Your task to perform on an android device: see sites visited before in the chrome app Image 0: 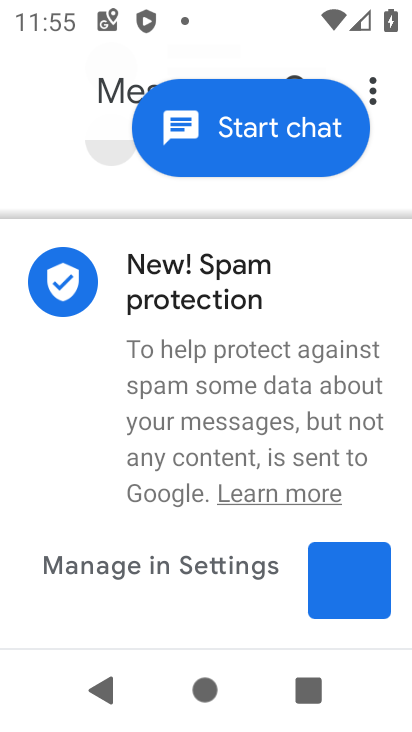
Step 0: press home button
Your task to perform on an android device: see sites visited before in the chrome app Image 1: 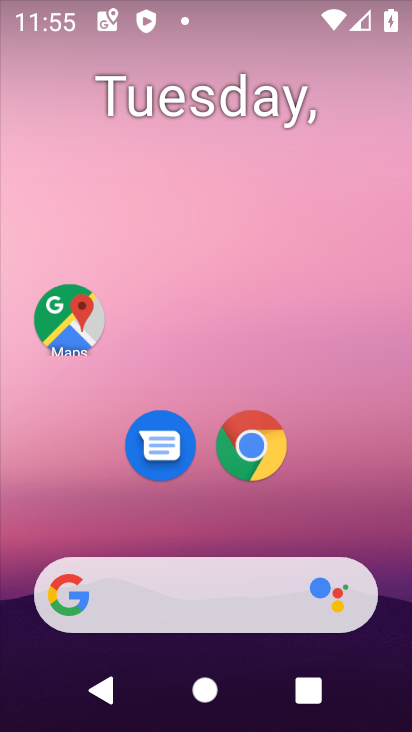
Step 1: drag from (338, 479) to (394, 40)
Your task to perform on an android device: see sites visited before in the chrome app Image 2: 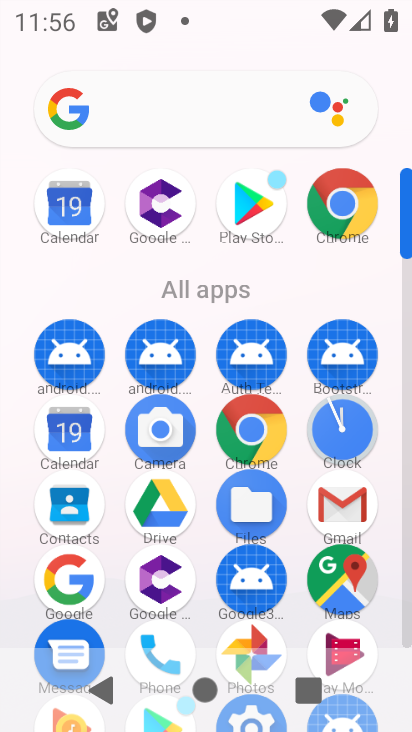
Step 2: drag from (300, 553) to (330, 106)
Your task to perform on an android device: see sites visited before in the chrome app Image 3: 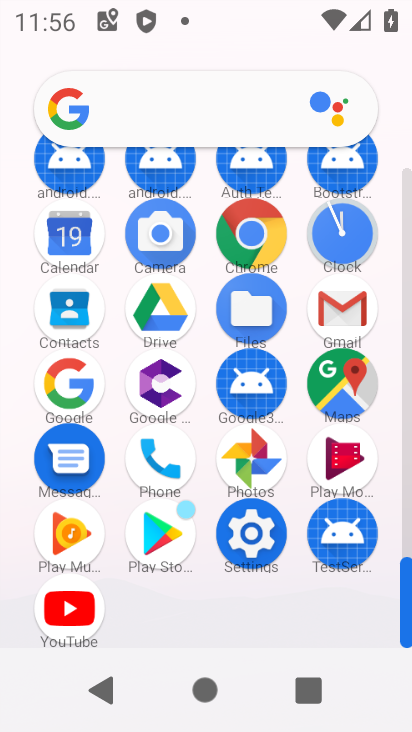
Step 3: click (258, 240)
Your task to perform on an android device: see sites visited before in the chrome app Image 4: 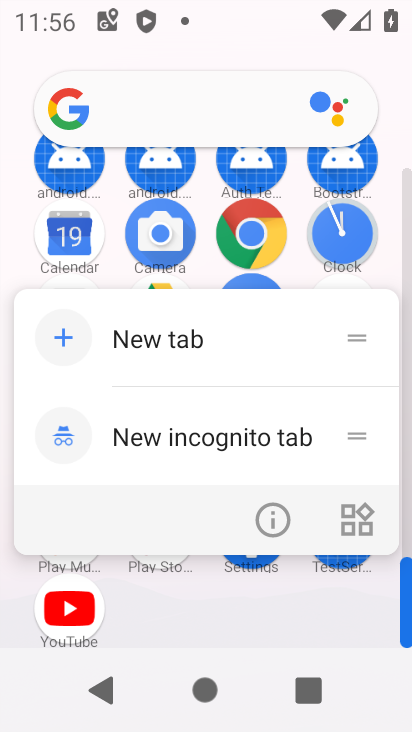
Step 4: click (258, 240)
Your task to perform on an android device: see sites visited before in the chrome app Image 5: 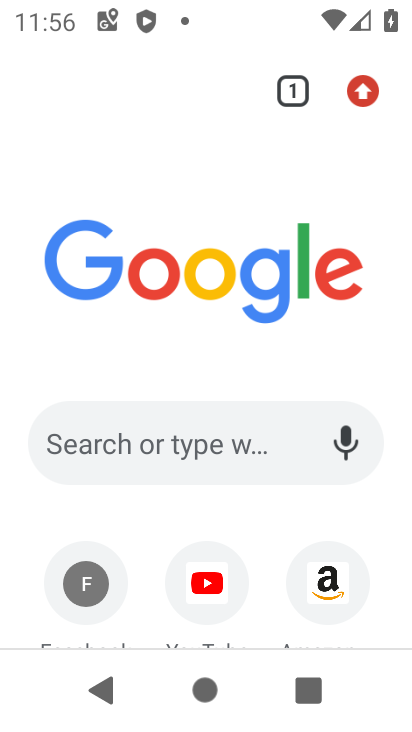
Step 5: task complete